Your task to perform on an android device: Open Google Image 0: 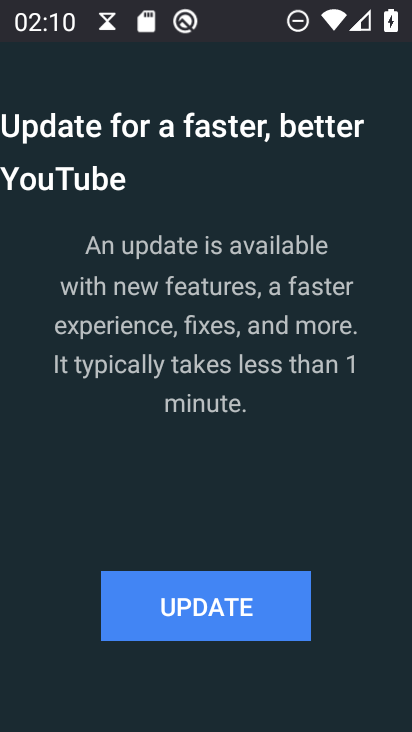
Step 0: press home button
Your task to perform on an android device: Open Google Image 1: 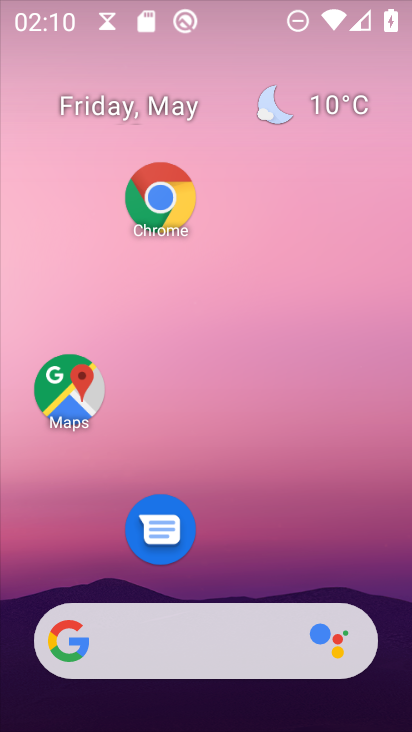
Step 1: drag from (256, 560) to (255, 175)
Your task to perform on an android device: Open Google Image 2: 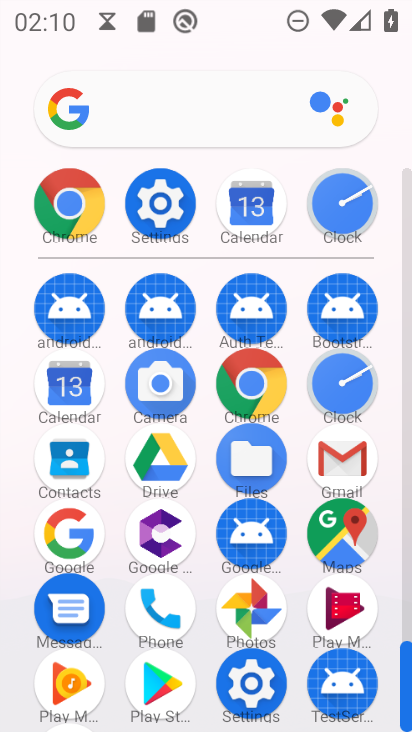
Step 2: click (62, 532)
Your task to perform on an android device: Open Google Image 3: 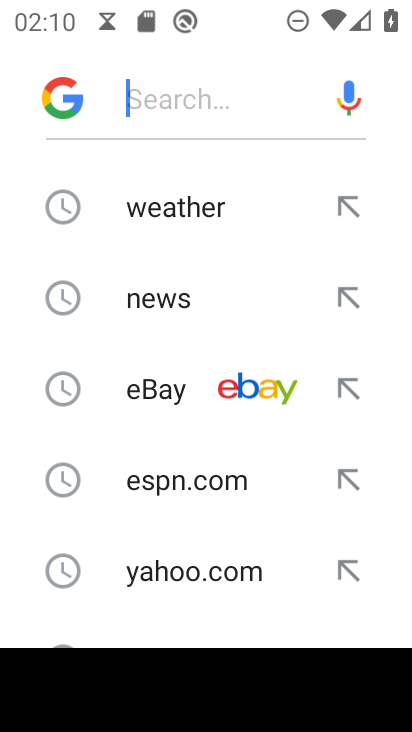
Step 3: task complete